Your task to perform on an android device: make emails show in primary in the gmail app Image 0: 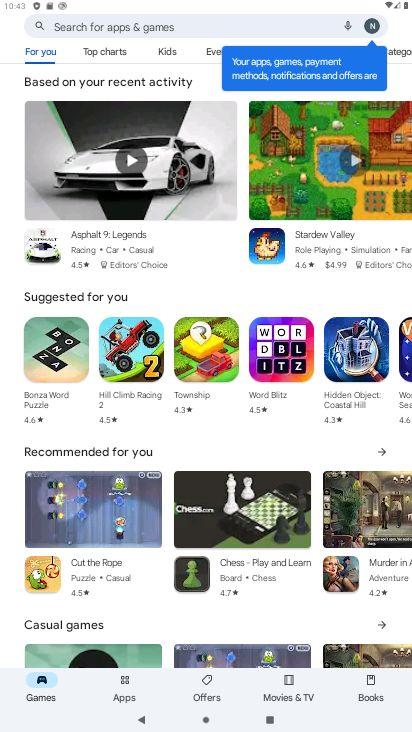
Step 0: press home button
Your task to perform on an android device: make emails show in primary in the gmail app Image 1: 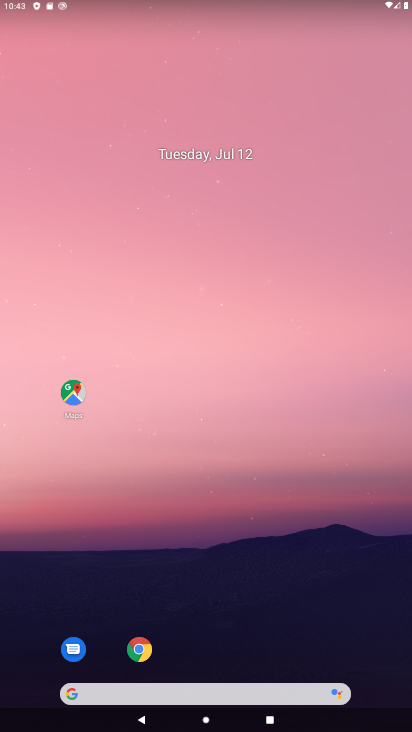
Step 1: drag from (244, 569) to (194, 0)
Your task to perform on an android device: make emails show in primary in the gmail app Image 2: 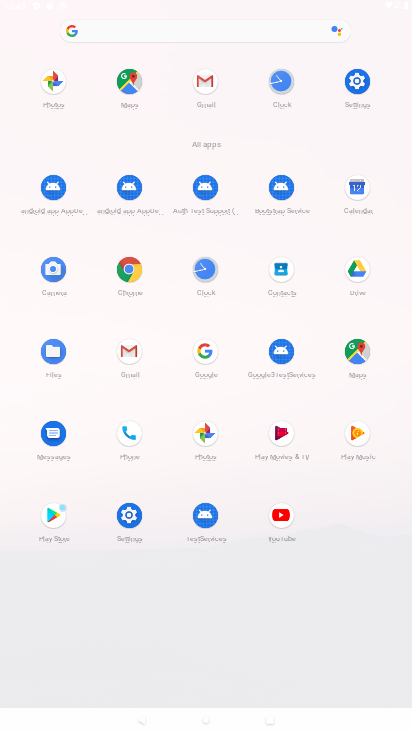
Step 2: click (130, 341)
Your task to perform on an android device: make emails show in primary in the gmail app Image 3: 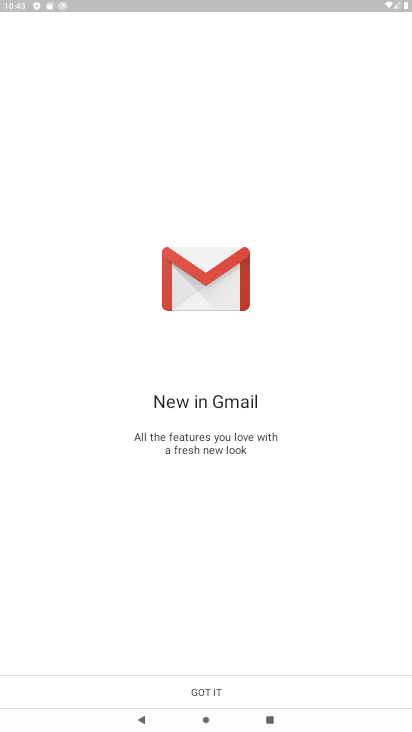
Step 3: click (198, 680)
Your task to perform on an android device: make emails show in primary in the gmail app Image 4: 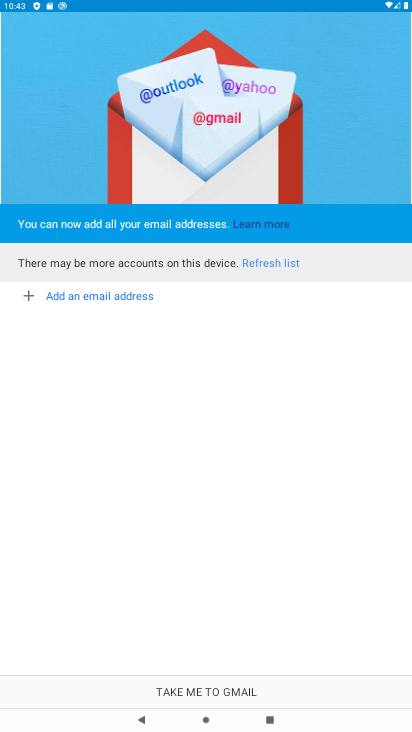
Step 4: click (198, 680)
Your task to perform on an android device: make emails show in primary in the gmail app Image 5: 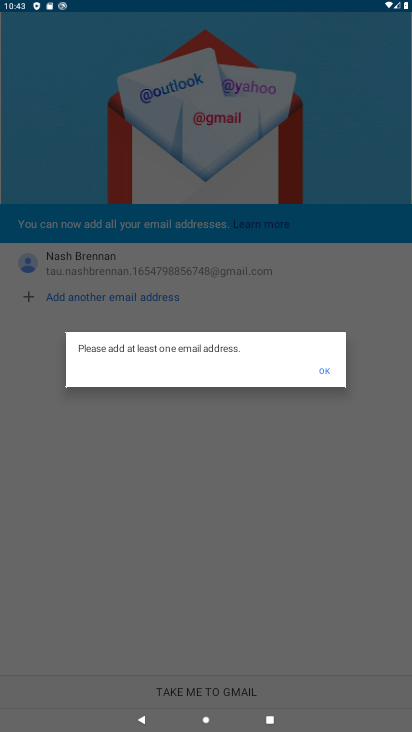
Step 5: click (321, 370)
Your task to perform on an android device: make emails show in primary in the gmail app Image 6: 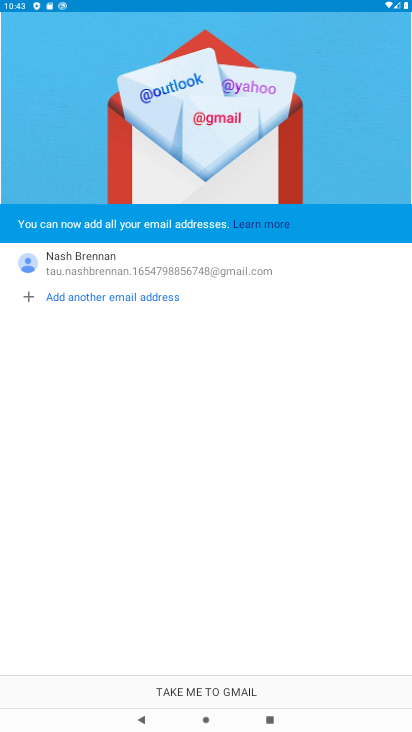
Step 6: click (221, 684)
Your task to perform on an android device: make emails show in primary in the gmail app Image 7: 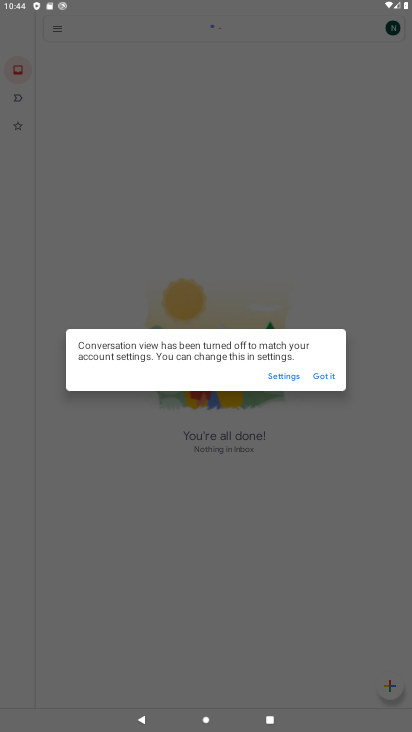
Step 7: click (333, 373)
Your task to perform on an android device: make emails show in primary in the gmail app Image 8: 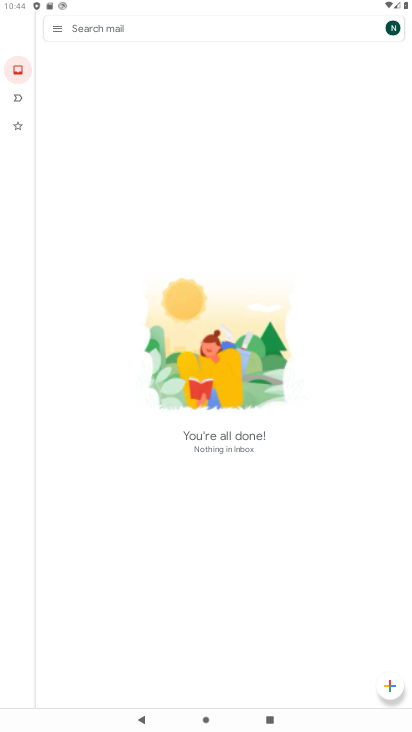
Step 8: click (53, 30)
Your task to perform on an android device: make emails show in primary in the gmail app Image 9: 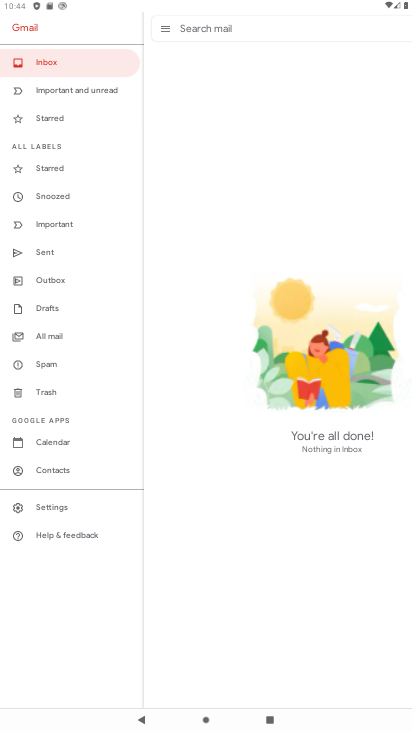
Step 9: task complete